Your task to perform on an android device: turn on translation in the chrome app Image 0: 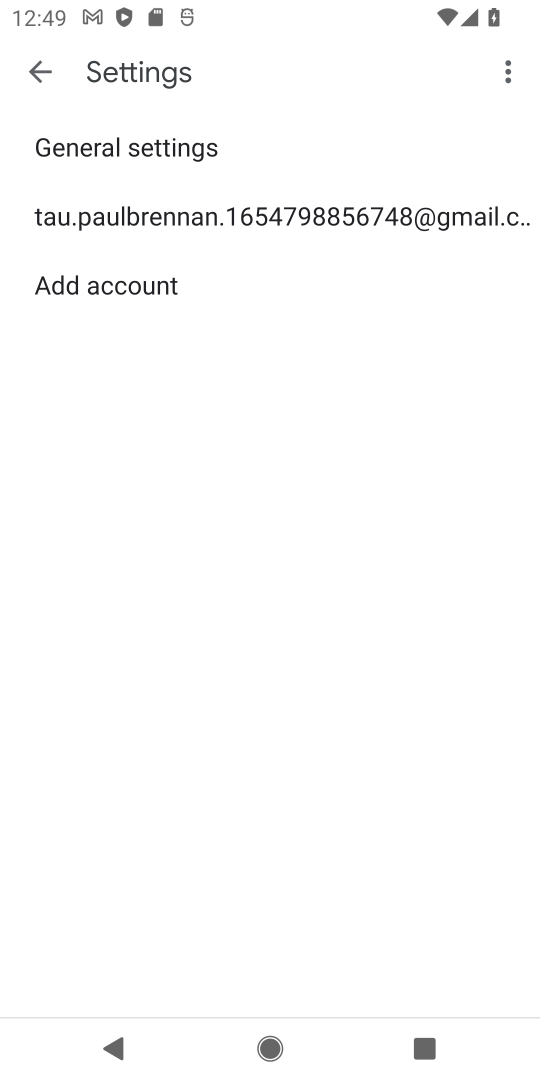
Step 0: press home button
Your task to perform on an android device: turn on translation in the chrome app Image 1: 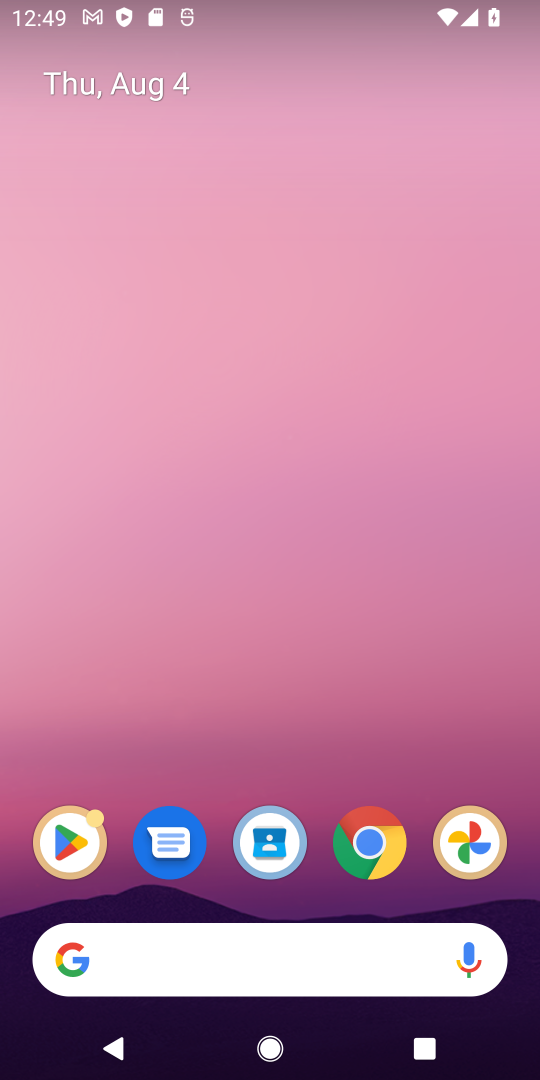
Step 1: drag from (232, 756) to (141, 201)
Your task to perform on an android device: turn on translation in the chrome app Image 2: 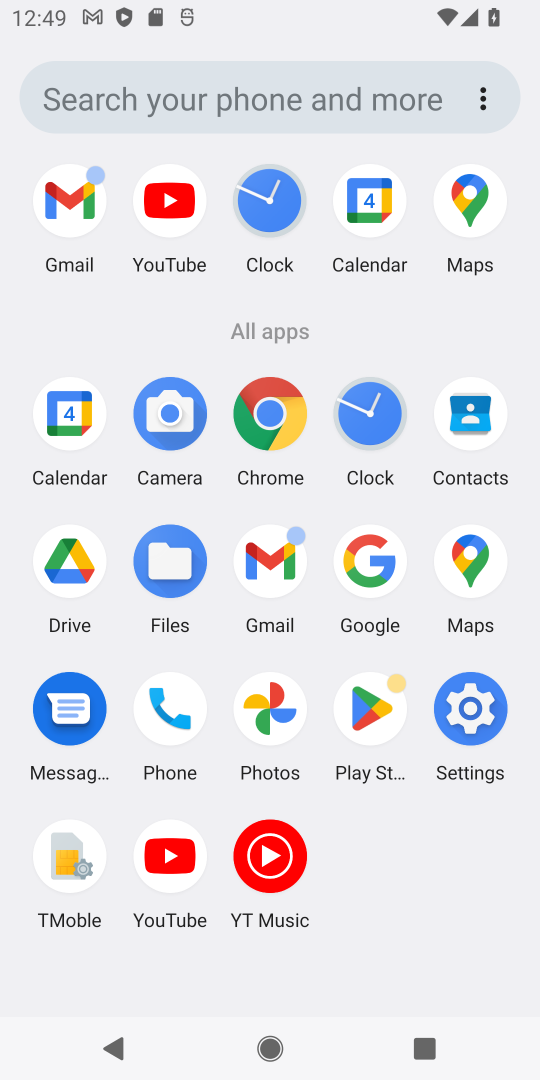
Step 2: click (276, 397)
Your task to perform on an android device: turn on translation in the chrome app Image 3: 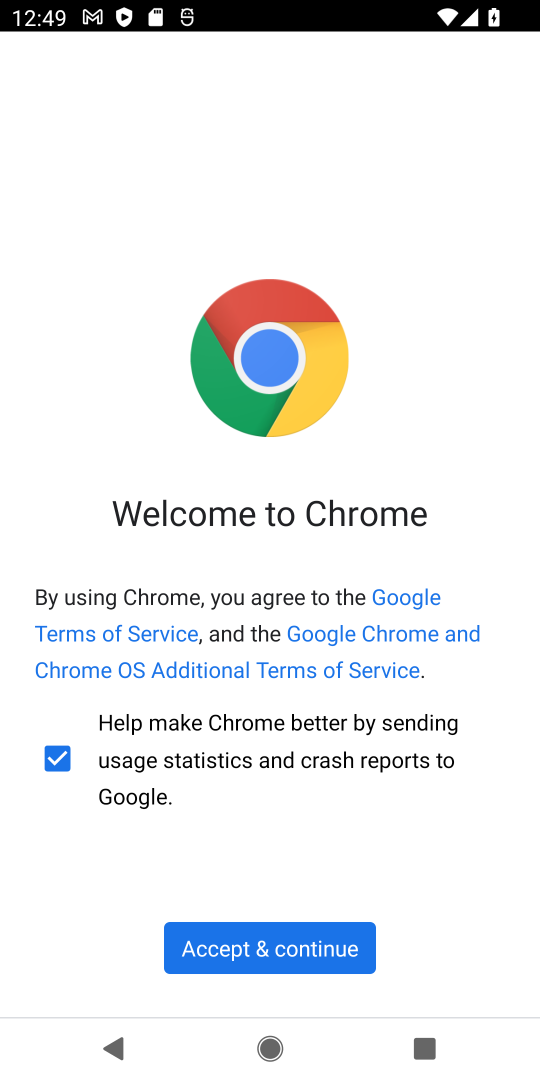
Step 3: click (279, 951)
Your task to perform on an android device: turn on translation in the chrome app Image 4: 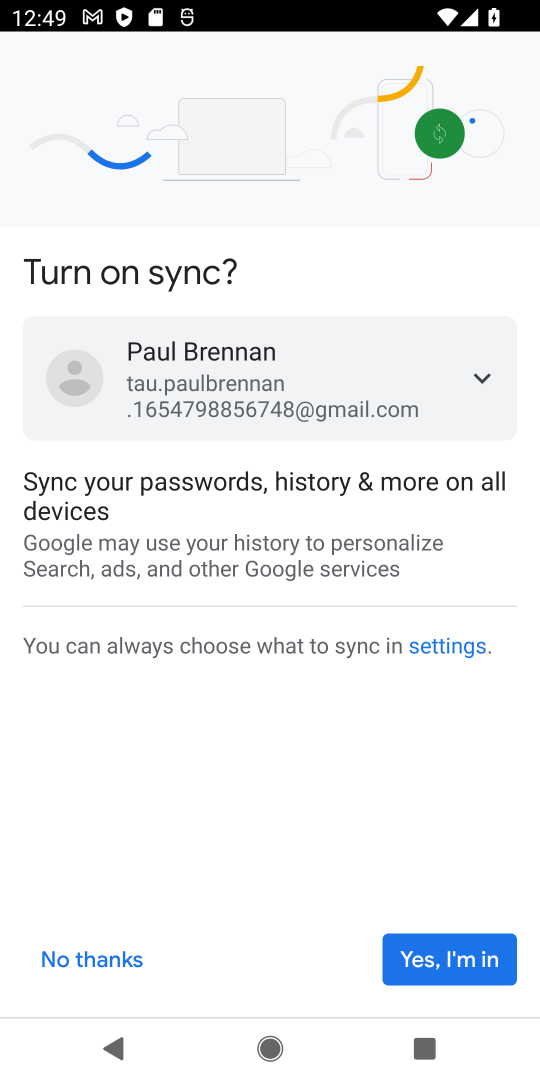
Step 4: click (468, 957)
Your task to perform on an android device: turn on translation in the chrome app Image 5: 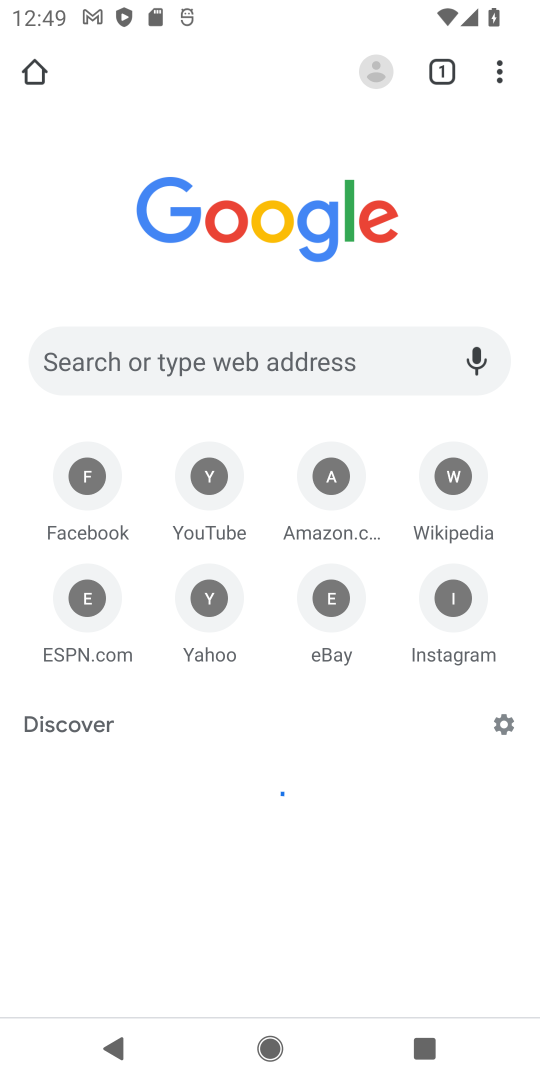
Step 5: click (468, 957)
Your task to perform on an android device: turn on translation in the chrome app Image 6: 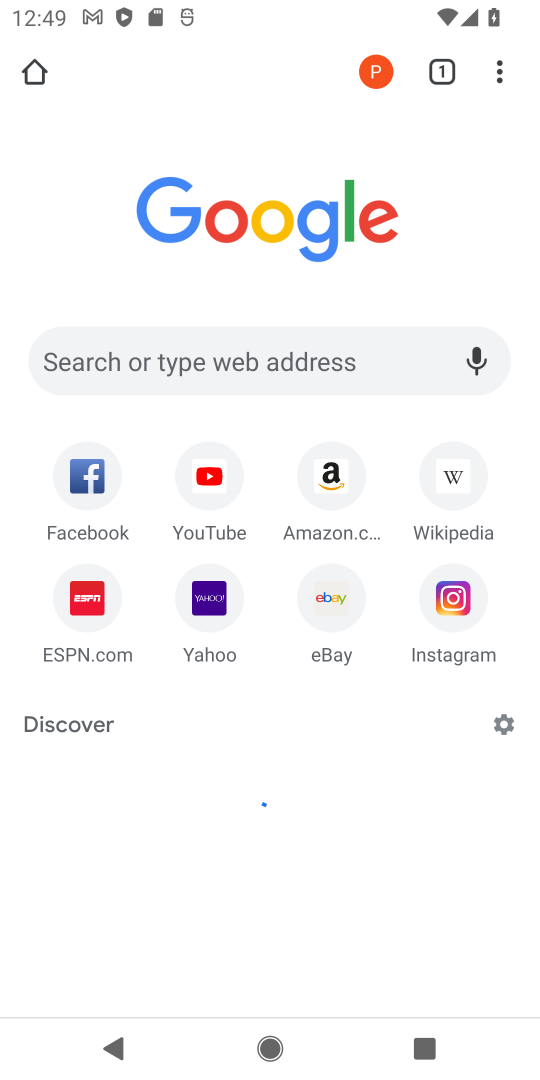
Step 6: click (505, 62)
Your task to perform on an android device: turn on translation in the chrome app Image 7: 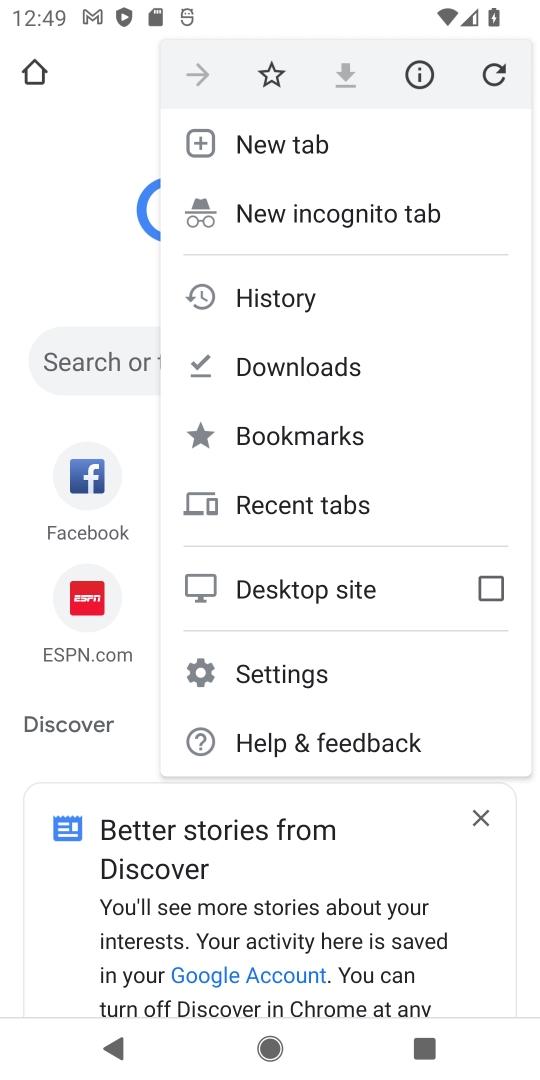
Step 7: click (266, 677)
Your task to perform on an android device: turn on translation in the chrome app Image 8: 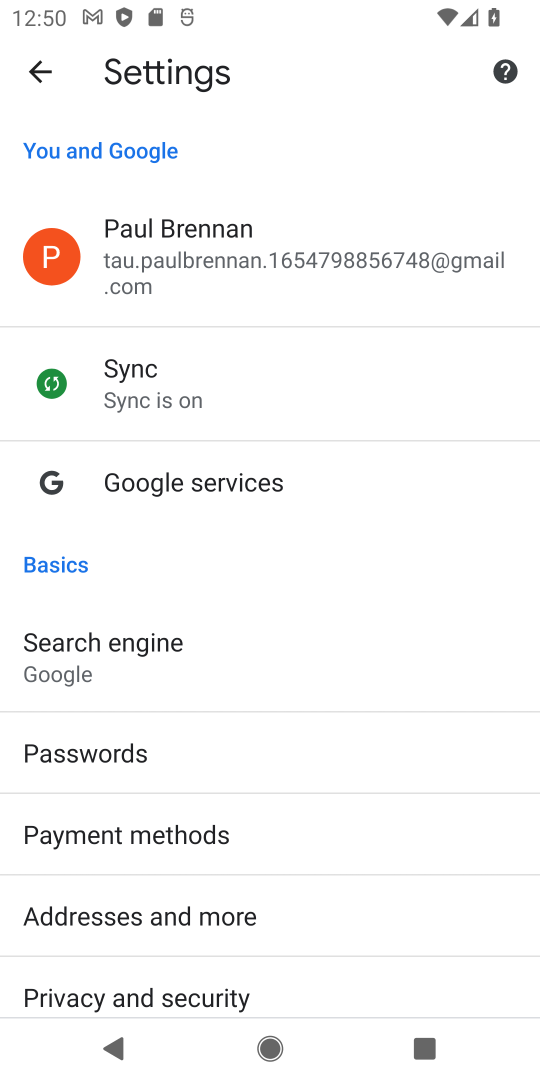
Step 8: drag from (231, 875) to (171, 138)
Your task to perform on an android device: turn on translation in the chrome app Image 9: 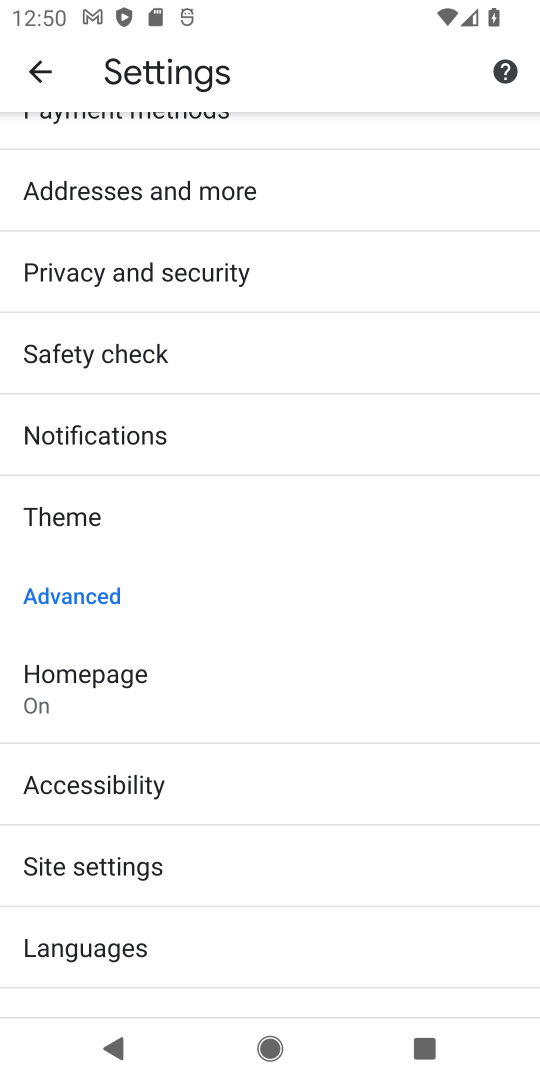
Step 9: click (223, 960)
Your task to perform on an android device: turn on translation in the chrome app Image 10: 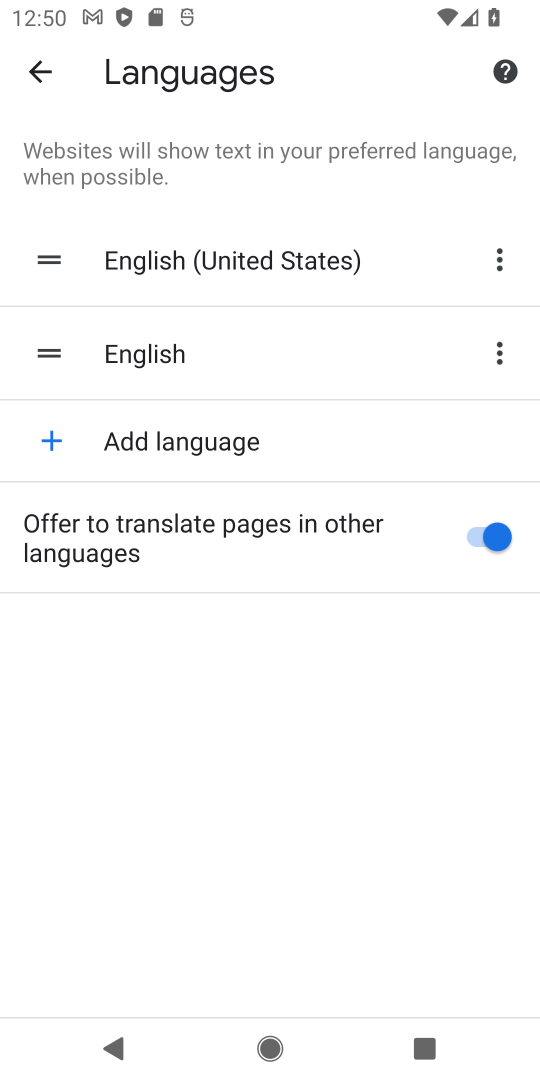
Step 10: task complete